Your task to perform on an android device: find which apps use the phone's location Image 0: 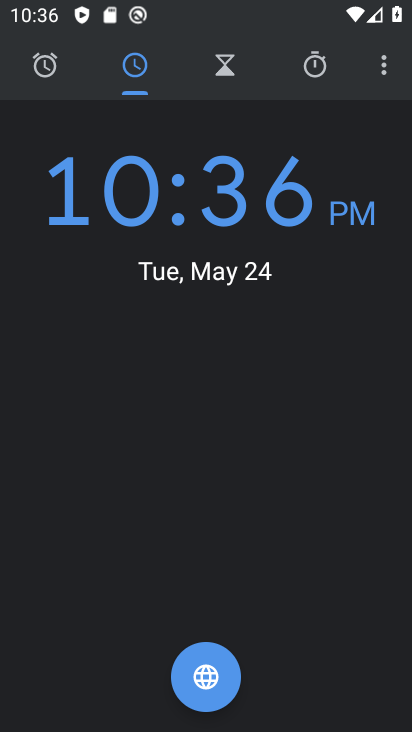
Step 0: press back button
Your task to perform on an android device: find which apps use the phone's location Image 1: 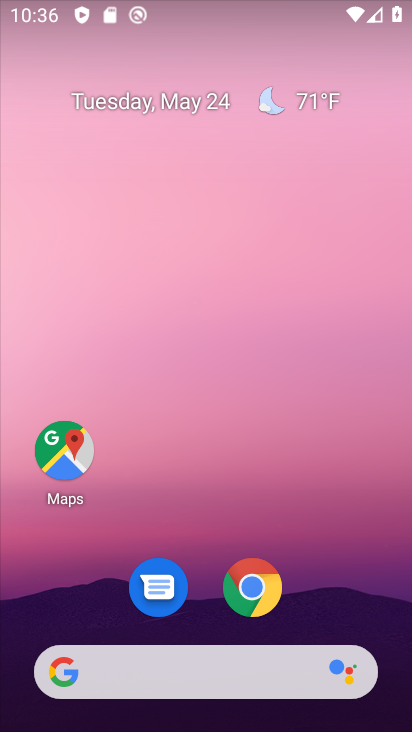
Step 1: drag from (294, 702) to (286, 43)
Your task to perform on an android device: find which apps use the phone's location Image 2: 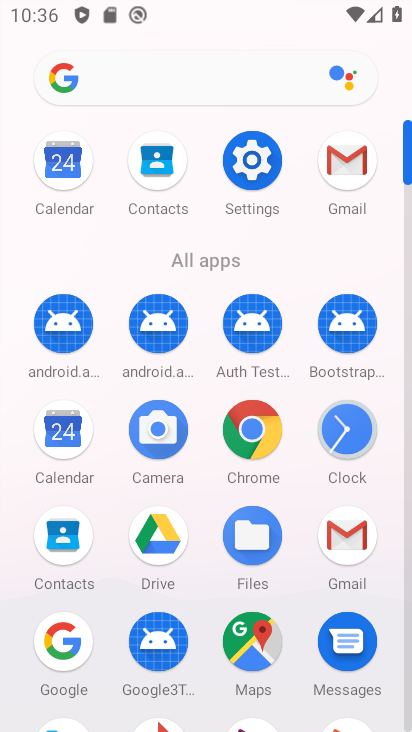
Step 2: drag from (231, 530) to (252, 255)
Your task to perform on an android device: find which apps use the phone's location Image 3: 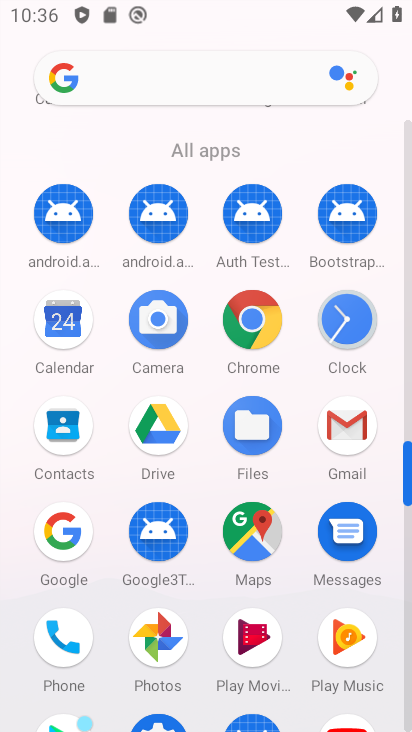
Step 3: drag from (216, 526) to (210, 162)
Your task to perform on an android device: find which apps use the phone's location Image 4: 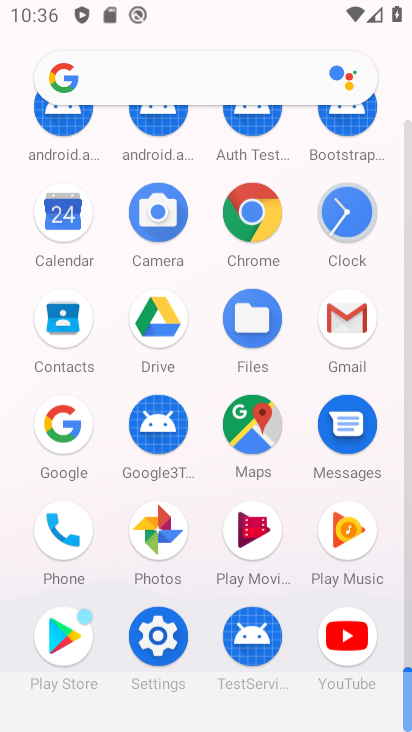
Step 4: drag from (248, 543) to (240, 305)
Your task to perform on an android device: find which apps use the phone's location Image 5: 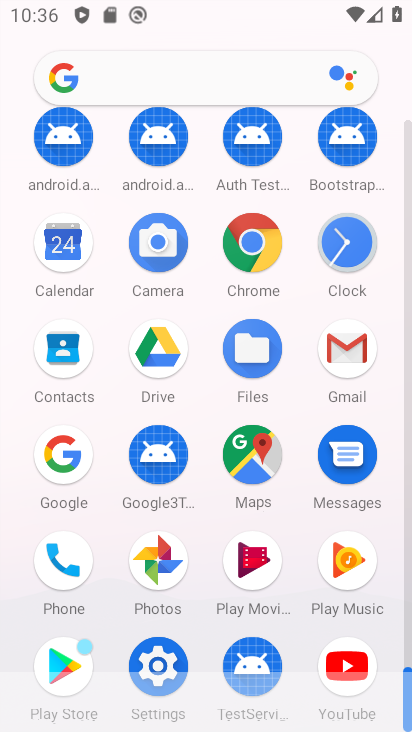
Step 5: click (150, 659)
Your task to perform on an android device: find which apps use the phone's location Image 6: 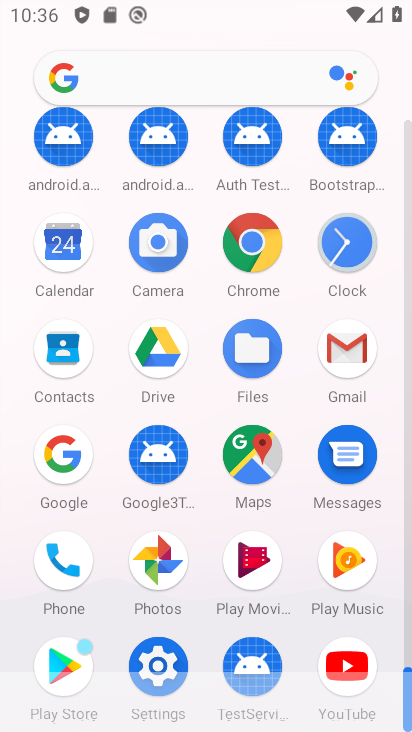
Step 6: click (152, 651)
Your task to perform on an android device: find which apps use the phone's location Image 7: 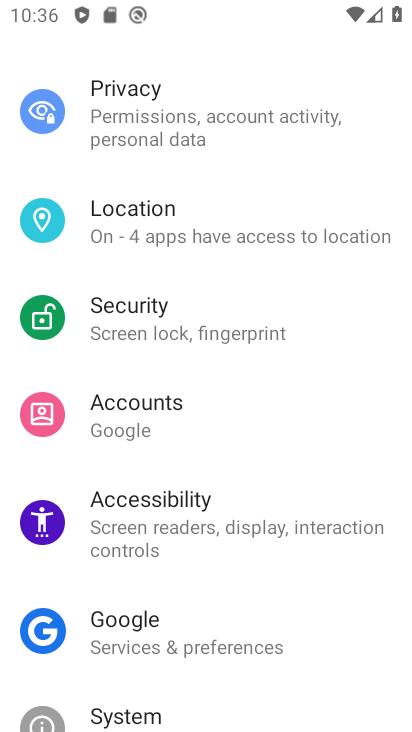
Step 7: click (153, 651)
Your task to perform on an android device: find which apps use the phone's location Image 8: 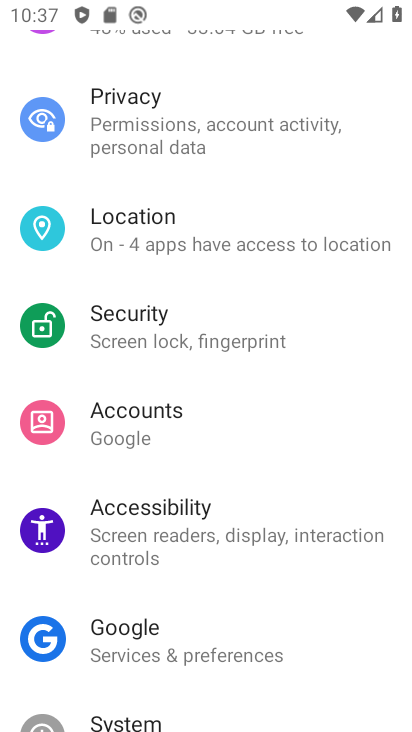
Step 8: click (157, 646)
Your task to perform on an android device: find which apps use the phone's location Image 9: 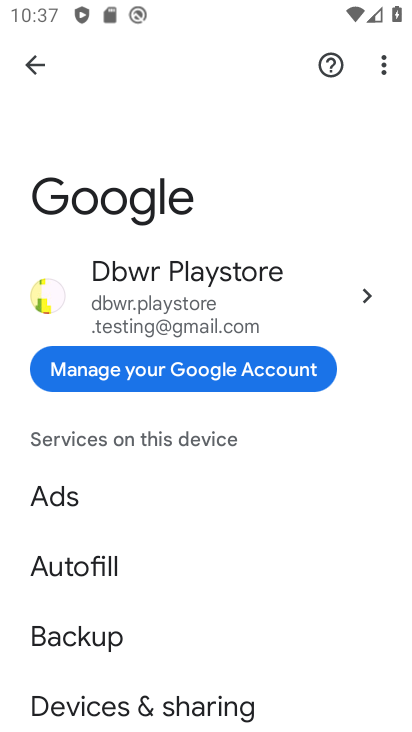
Step 9: task complete